Your task to perform on an android device: allow notifications from all sites in the chrome app Image 0: 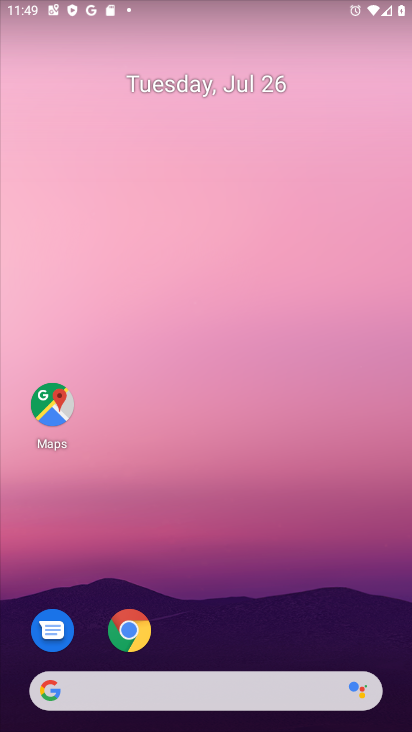
Step 0: click (137, 642)
Your task to perform on an android device: allow notifications from all sites in the chrome app Image 1: 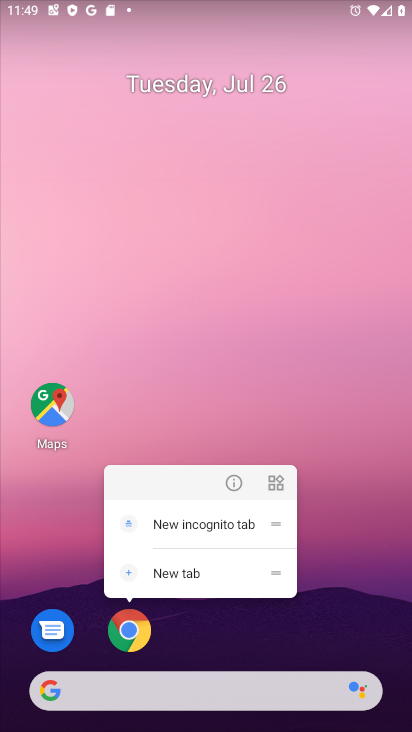
Step 1: click (231, 488)
Your task to perform on an android device: allow notifications from all sites in the chrome app Image 2: 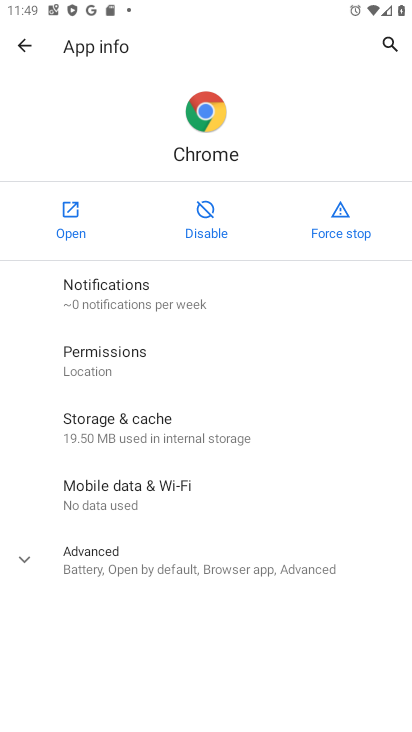
Step 2: click (175, 290)
Your task to perform on an android device: allow notifications from all sites in the chrome app Image 3: 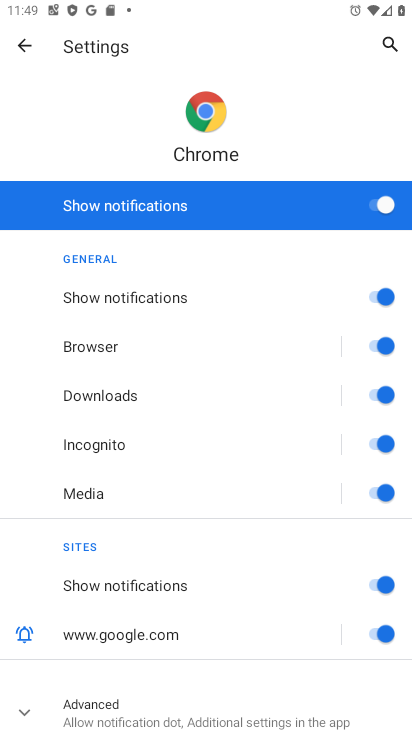
Step 3: task complete